Your task to perform on an android device: turn off location Image 0: 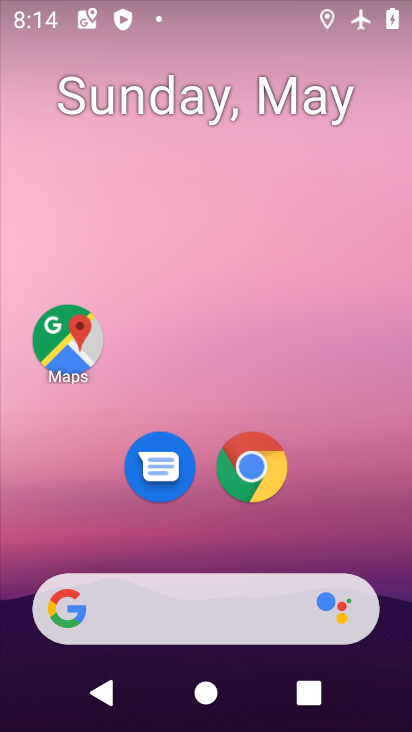
Step 0: drag from (229, 549) to (231, 77)
Your task to perform on an android device: turn off location Image 1: 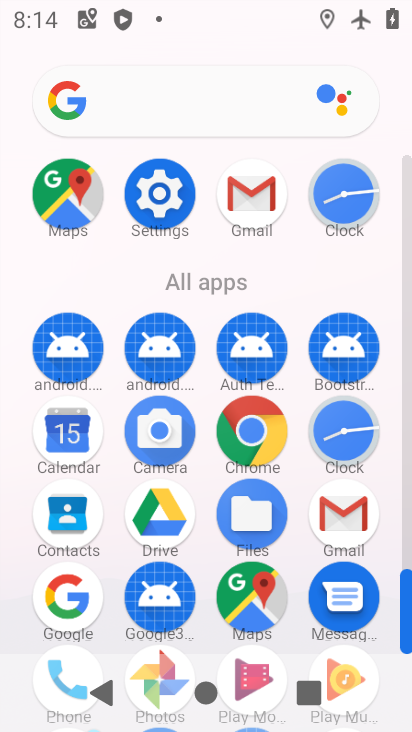
Step 1: click (160, 188)
Your task to perform on an android device: turn off location Image 2: 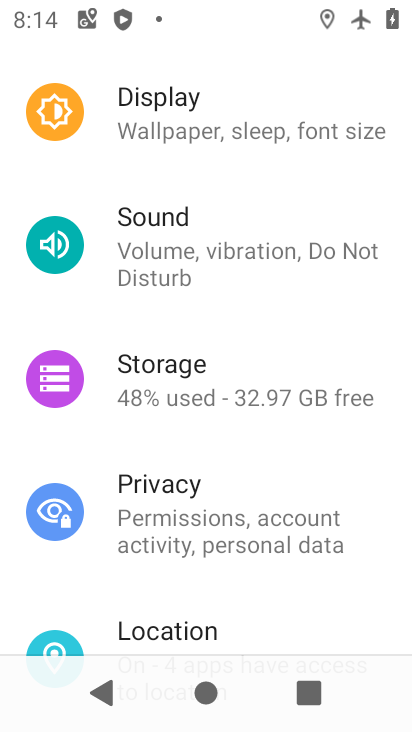
Step 2: click (173, 633)
Your task to perform on an android device: turn off location Image 3: 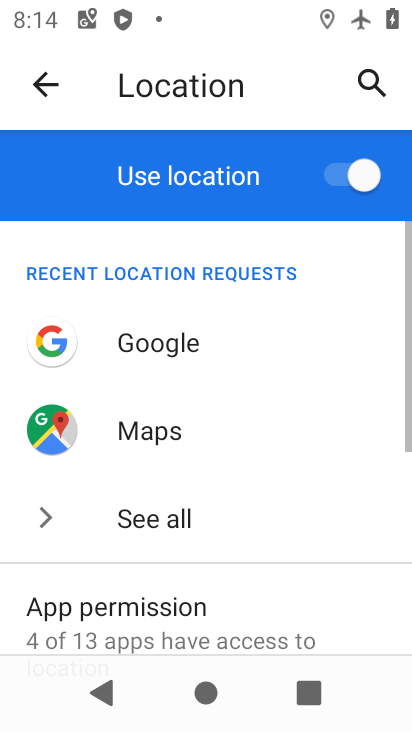
Step 3: click (337, 166)
Your task to perform on an android device: turn off location Image 4: 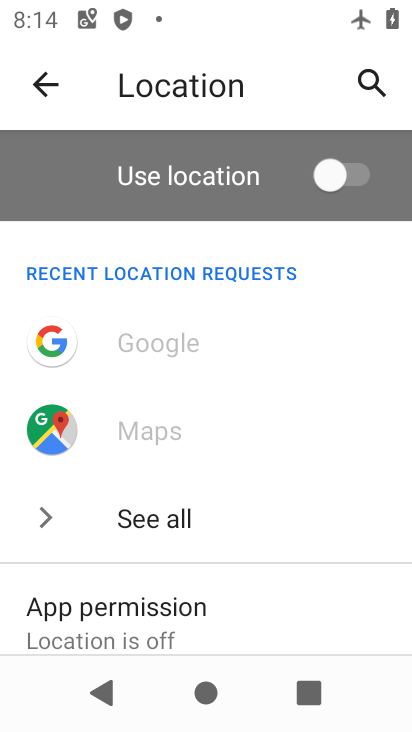
Step 4: task complete